Your task to perform on an android device: Go to battery settings Image 0: 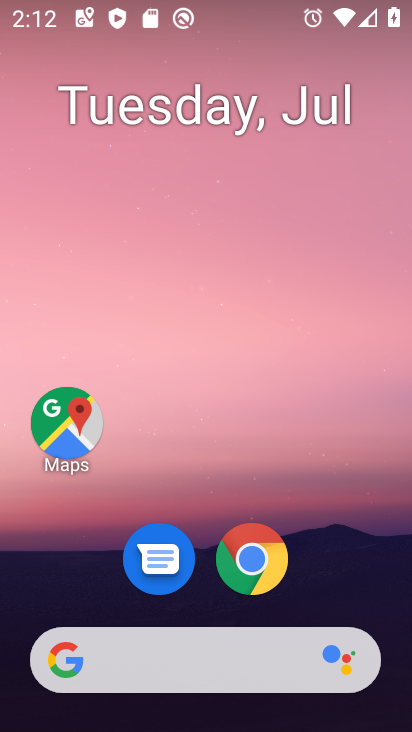
Step 0: press home button
Your task to perform on an android device: Go to battery settings Image 1: 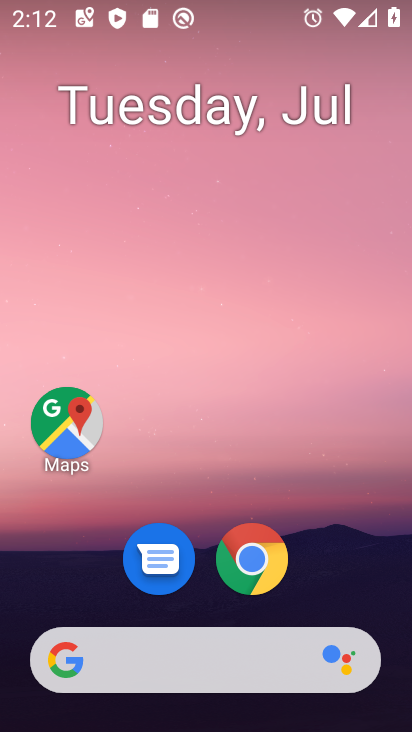
Step 1: drag from (346, 572) to (380, 151)
Your task to perform on an android device: Go to battery settings Image 2: 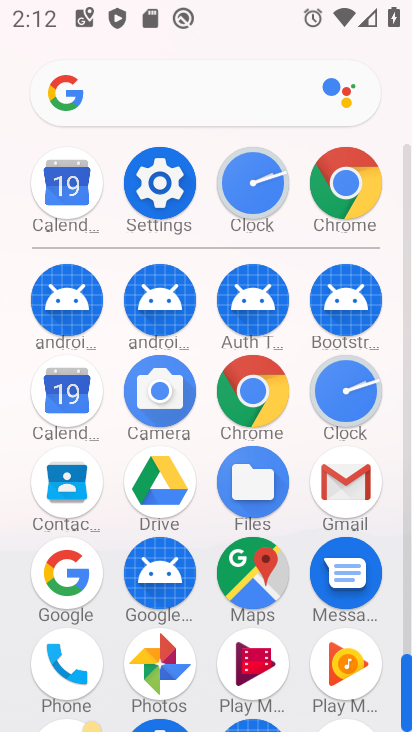
Step 2: click (180, 191)
Your task to perform on an android device: Go to battery settings Image 3: 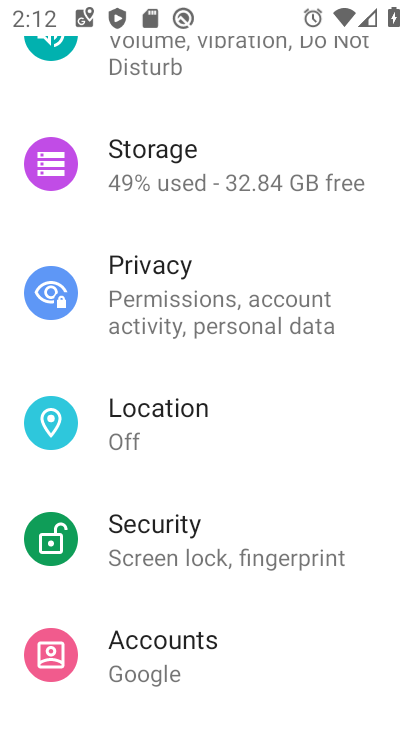
Step 3: drag from (333, 207) to (328, 296)
Your task to perform on an android device: Go to battery settings Image 4: 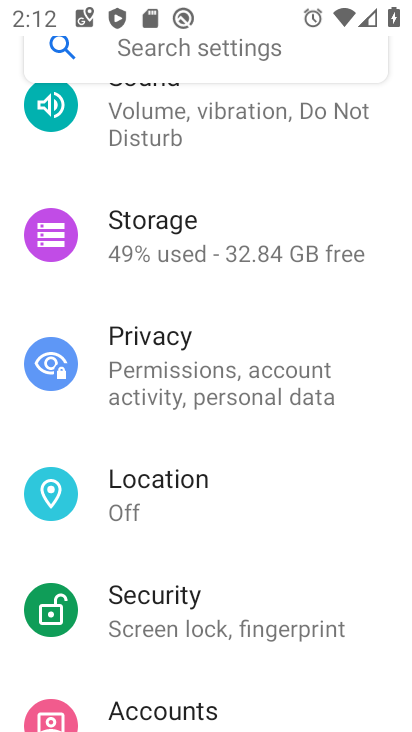
Step 4: drag from (340, 195) to (354, 305)
Your task to perform on an android device: Go to battery settings Image 5: 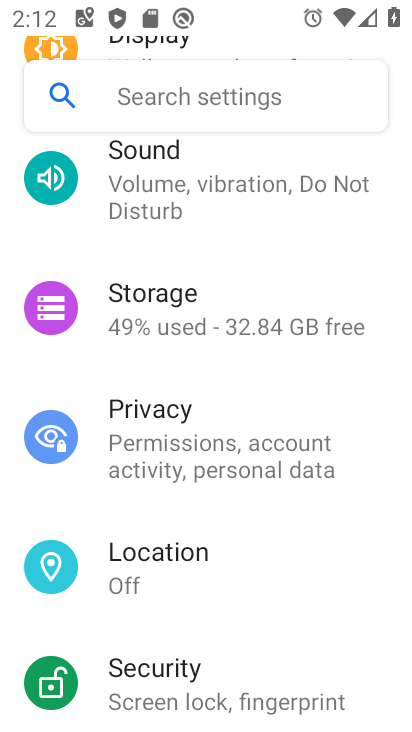
Step 5: drag from (369, 242) to (370, 334)
Your task to perform on an android device: Go to battery settings Image 6: 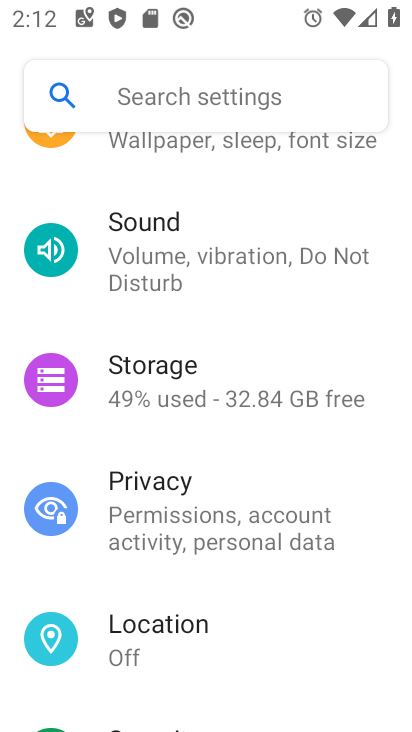
Step 6: drag from (381, 213) to (384, 295)
Your task to perform on an android device: Go to battery settings Image 7: 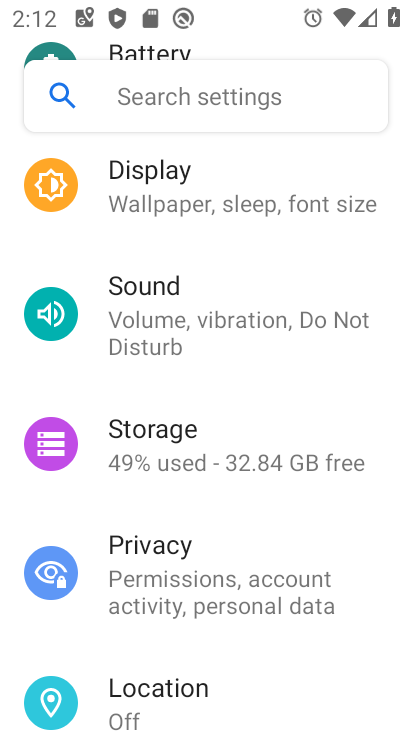
Step 7: drag from (380, 235) to (380, 317)
Your task to perform on an android device: Go to battery settings Image 8: 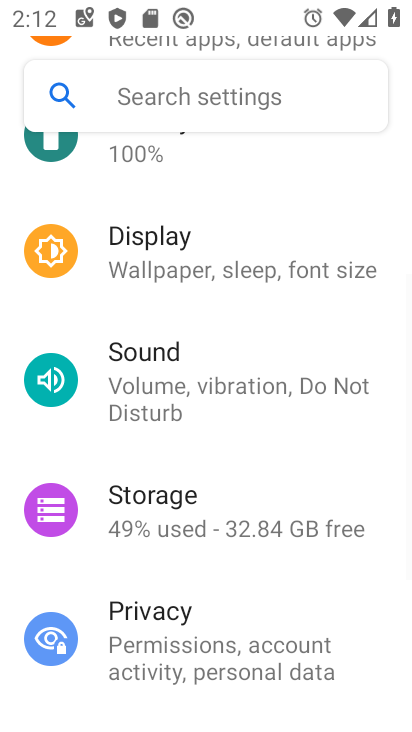
Step 8: drag from (378, 218) to (377, 297)
Your task to perform on an android device: Go to battery settings Image 9: 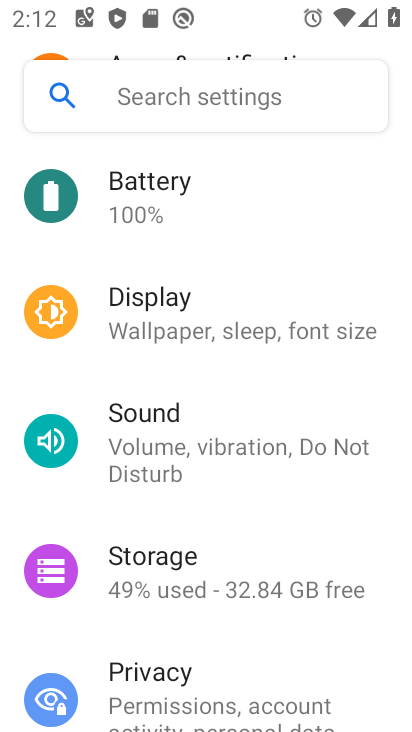
Step 9: drag from (372, 207) to (373, 296)
Your task to perform on an android device: Go to battery settings Image 10: 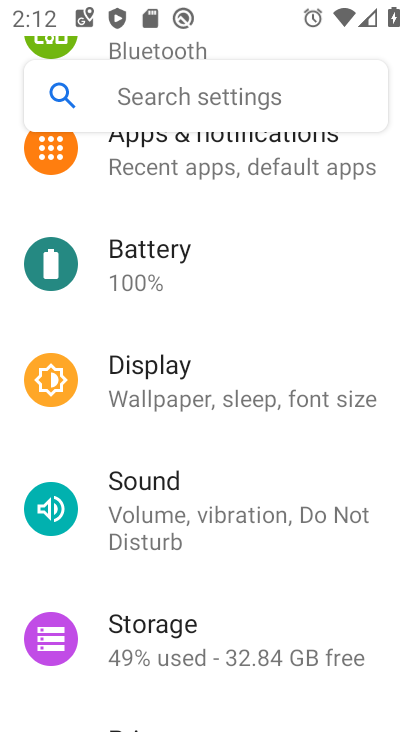
Step 10: drag from (375, 223) to (377, 301)
Your task to perform on an android device: Go to battery settings Image 11: 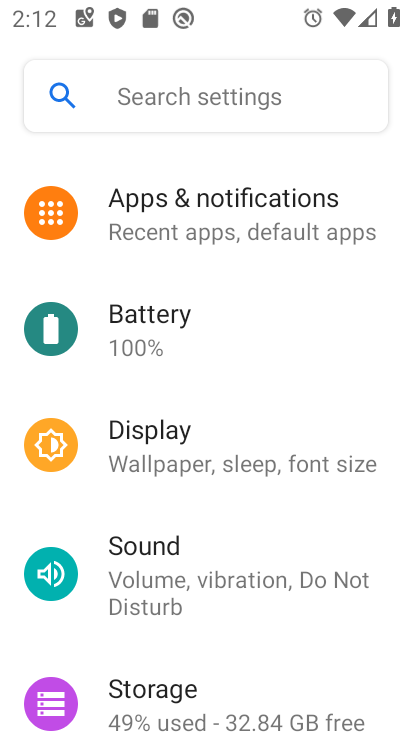
Step 11: drag from (380, 204) to (372, 316)
Your task to perform on an android device: Go to battery settings Image 12: 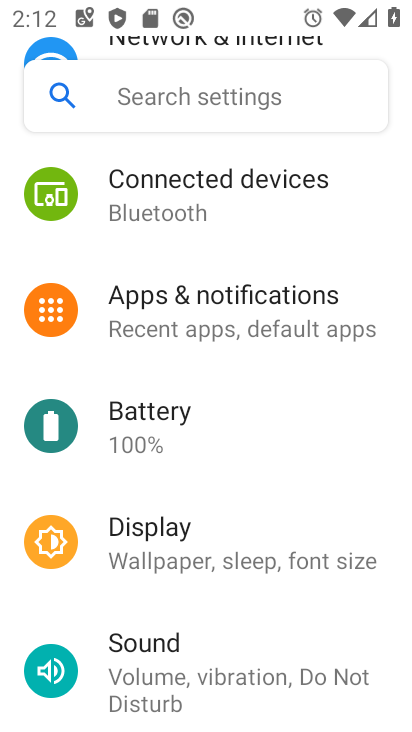
Step 12: click (336, 427)
Your task to perform on an android device: Go to battery settings Image 13: 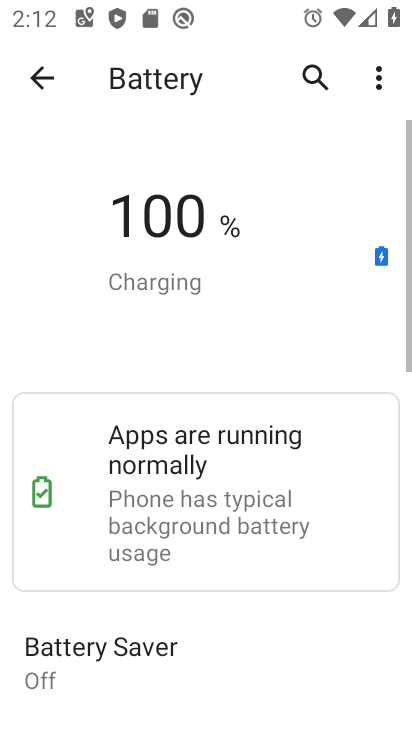
Step 13: task complete